Your task to perform on an android device: turn off location Image 0: 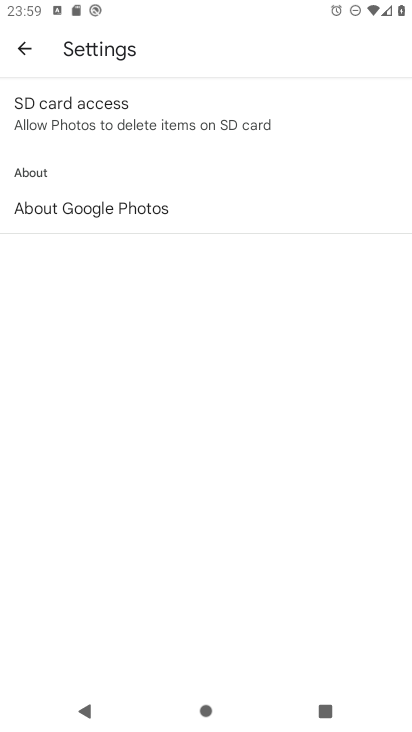
Step 0: press home button
Your task to perform on an android device: turn off location Image 1: 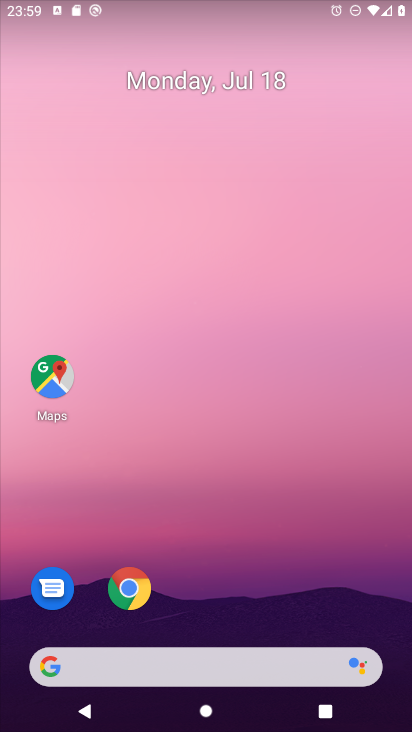
Step 1: drag from (396, 626) to (343, 98)
Your task to perform on an android device: turn off location Image 2: 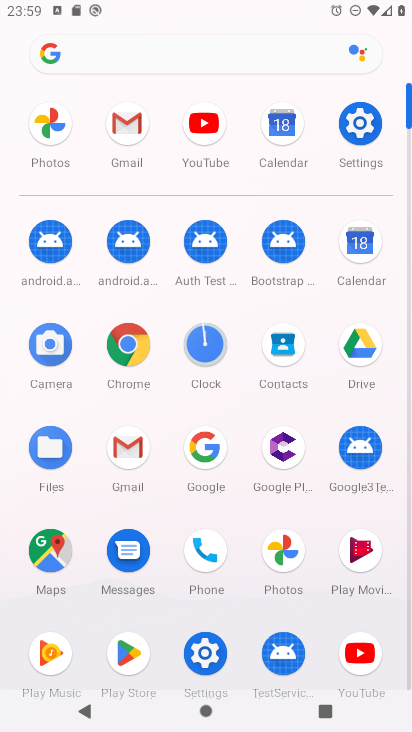
Step 2: click (206, 653)
Your task to perform on an android device: turn off location Image 3: 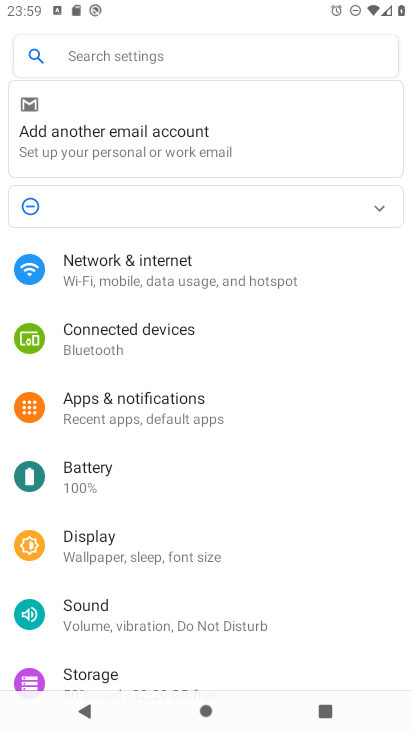
Step 3: drag from (323, 659) to (289, 235)
Your task to perform on an android device: turn off location Image 4: 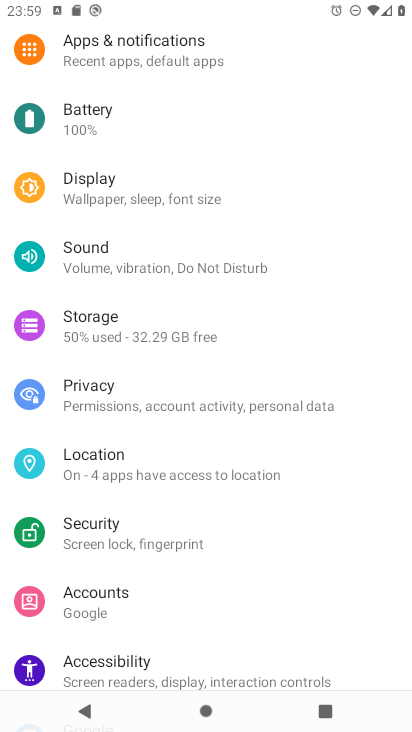
Step 4: click (107, 474)
Your task to perform on an android device: turn off location Image 5: 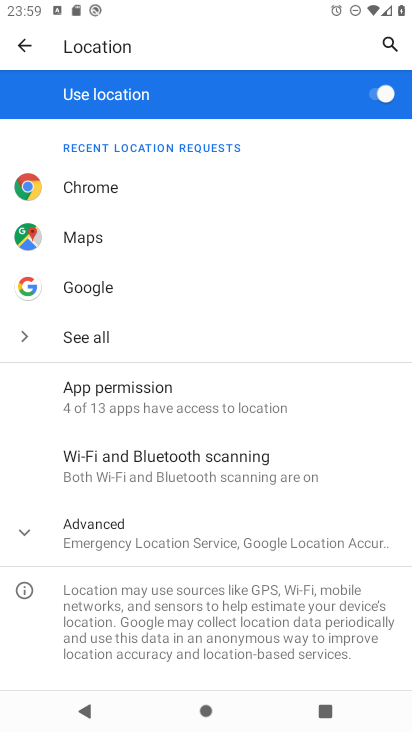
Step 5: click (372, 98)
Your task to perform on an android device: turn off location Image 6: 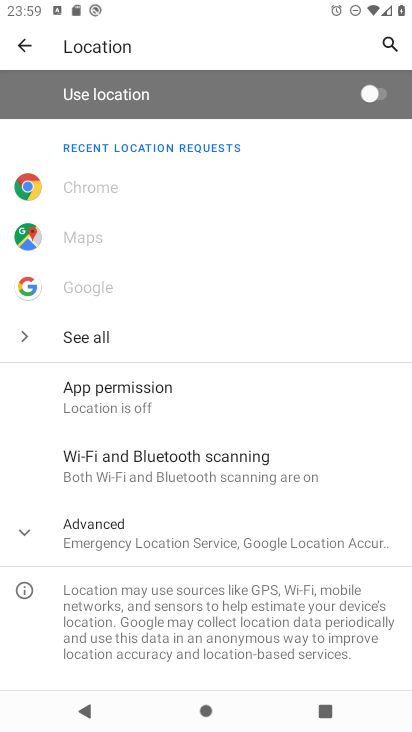
Step 6: task complete